Your task to perform on an android device: Go to Google Image 0: 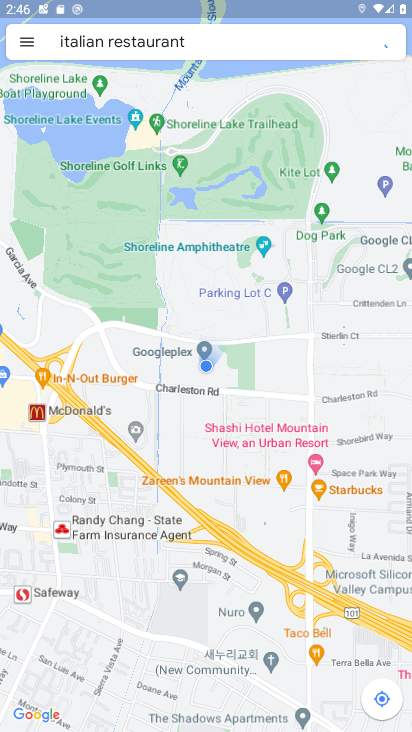
Step 0: press home button
Your task to perform on an android device: Go to Google Image 1: 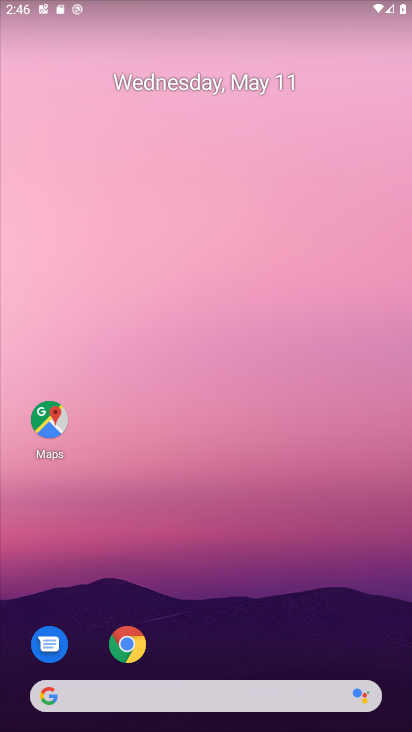
Step 1: click (200, 695)
Your task to perform on an android device: Go to Google Image 2: 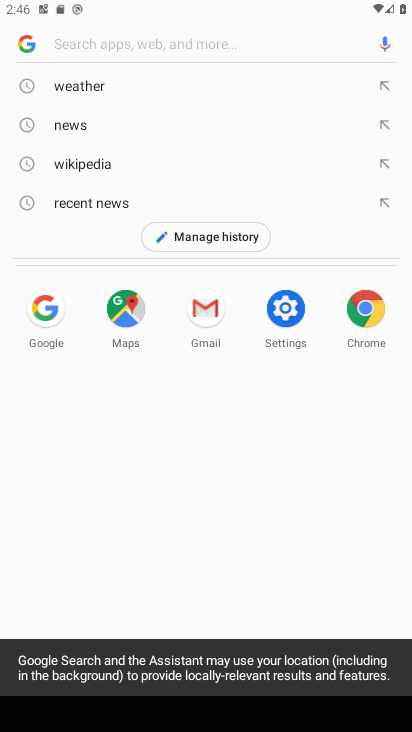
Step 2: click (60, 314)
Your task to perform on an android device: Go to Google Image 3: 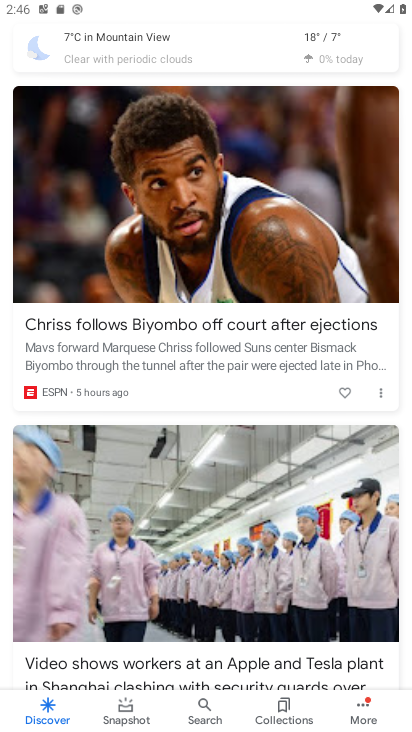
Step 3: task complete